Your task to perform on an android device: delete location history Image 0: 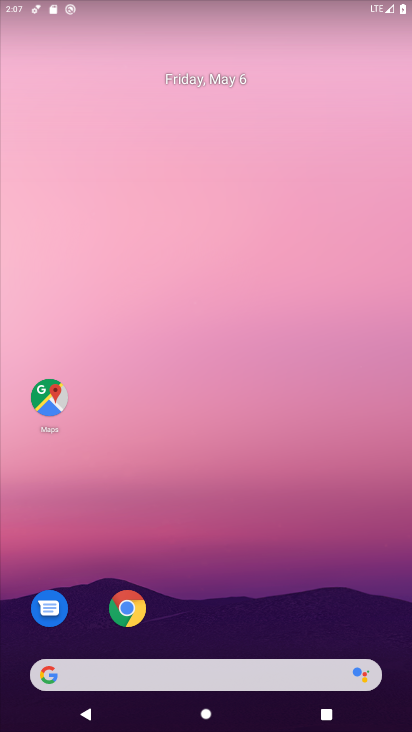
Step 0: drag from (251, 628) to (248, 209)
Your task to perform on an android device: delete location history Image 1: 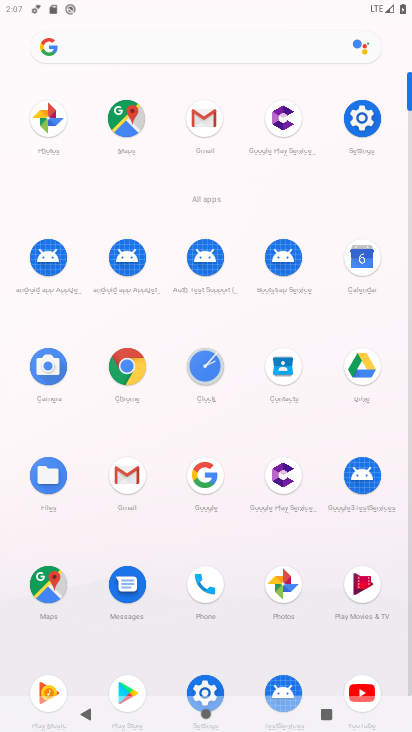
Step 1: click (61, 592)
Your task to perform on an android device: delete location history Image 2: 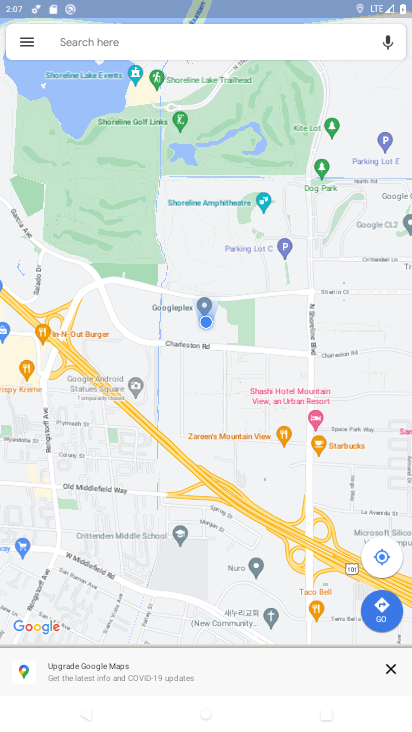
Step 2: click (22, 43)
Your task to perform on an android device: delete location history Image 3: 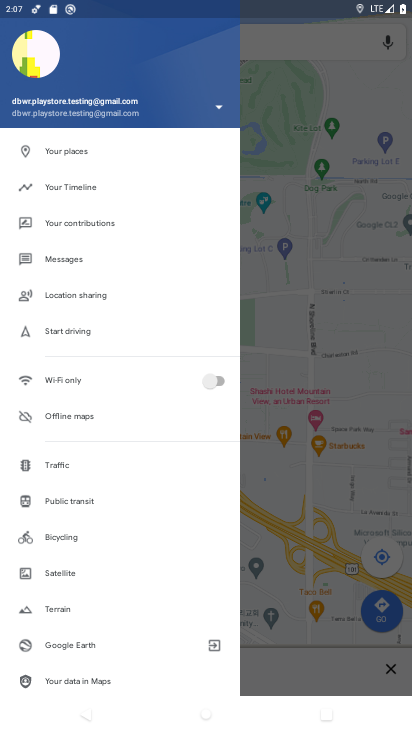
Step 3: click (83, 188)
Your task to perform on an android device: delete location history Image 4: 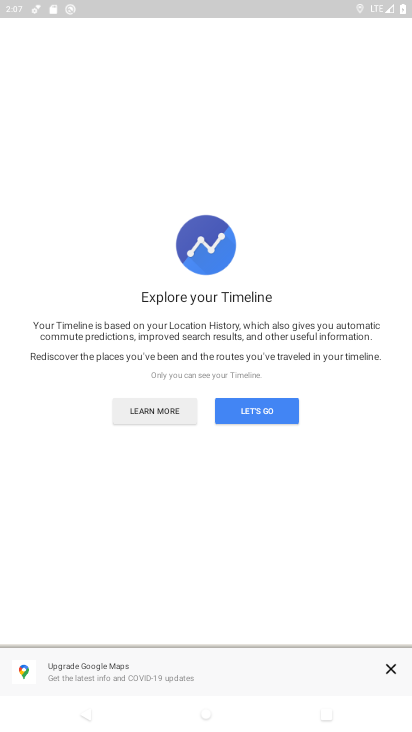
Step 4: click (252, 406)
Your task to perform on an android device: delete location history Image 5: 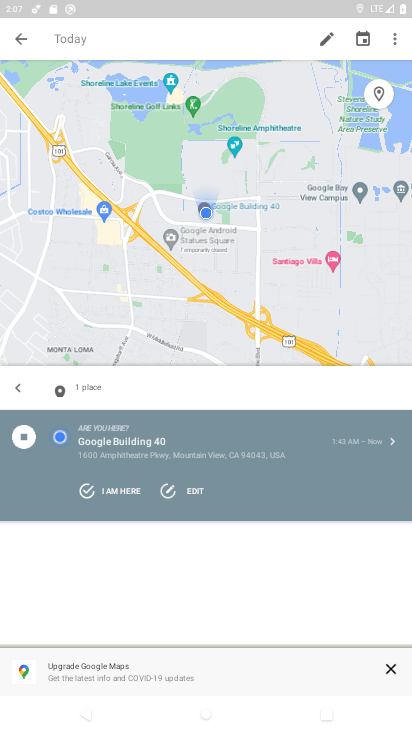
Step 5: click (400, 43)
Your task to perform on an android device: delete location history Image 6: 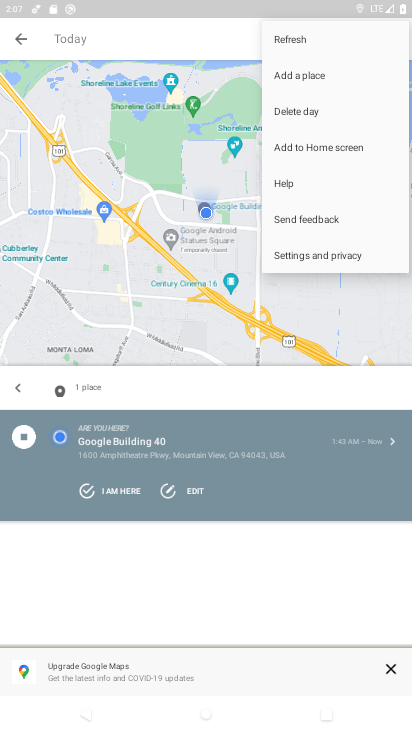
Step 6: click (314, 255)
Your task to perform on an android device: delete location history Image 7: 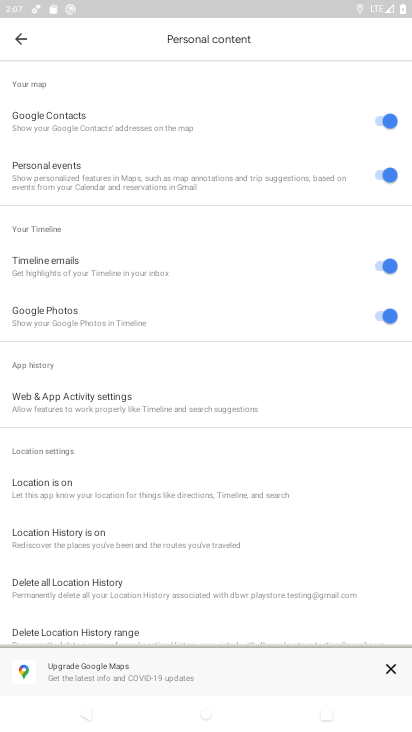
Step 7: drag from (124, 540) to (132, 394)
Your task to perform on an android device: delete location history Image 8: 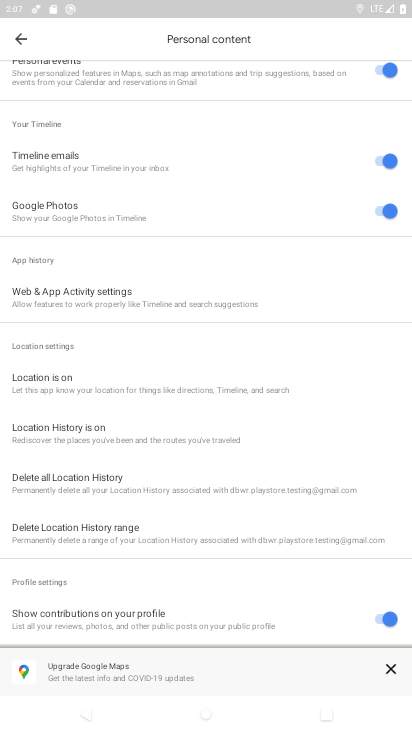
Step 8: click (106, 482)
Your task to perform on an android device: delete location history Image 9: 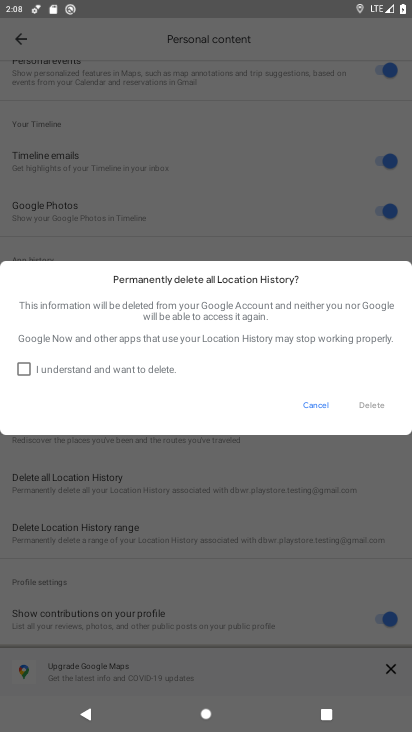
Step 9: click (93, 369)
Your task to perform on an android device: delete location history Image 10: 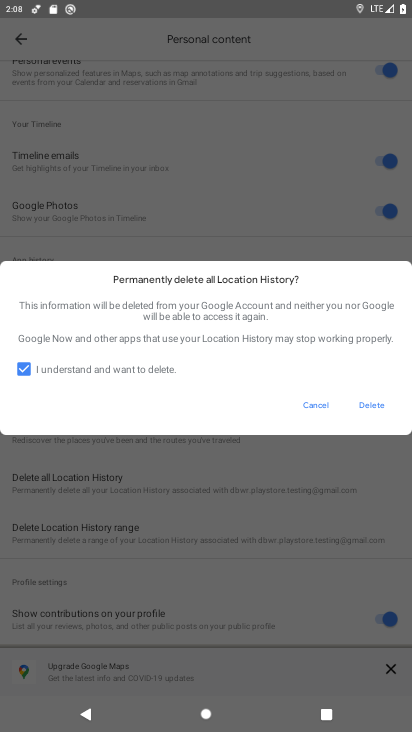
Step 10: click (375, 399)
Your task to perform on an android device: delete location history Image 11: 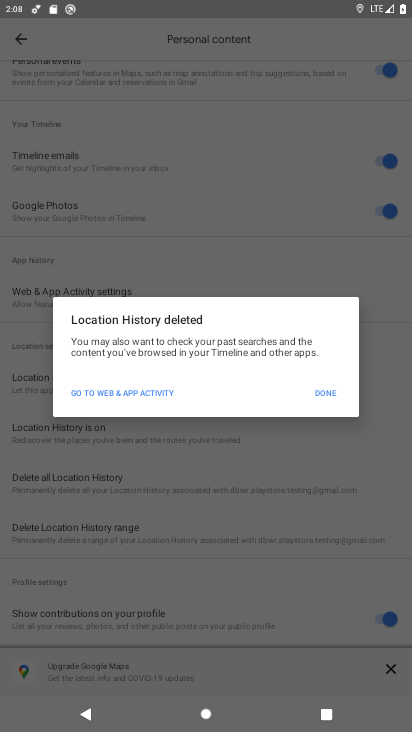
Step 11: click (300, 396)
Your task to perform on an android device: delete location history Image 12: 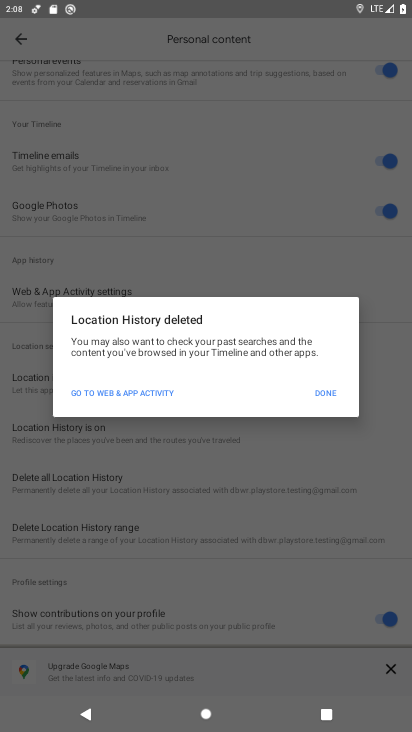
Step 12: click (329, 391)
Your task to perform on an android device: delete location history Image 13: 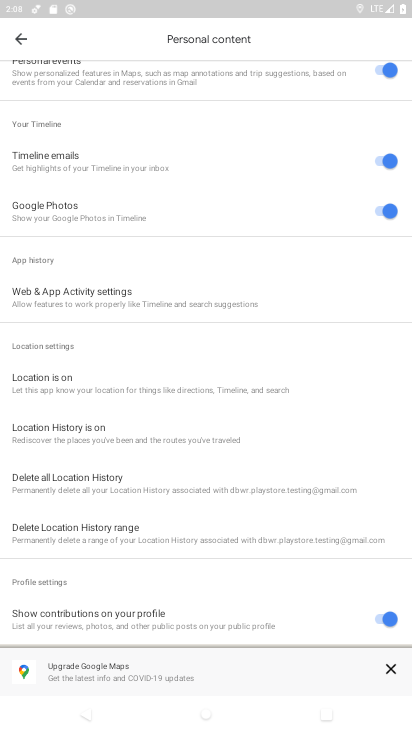
Step 13: task complete